Your task to perform on an android device: Open battery settings Image 0: 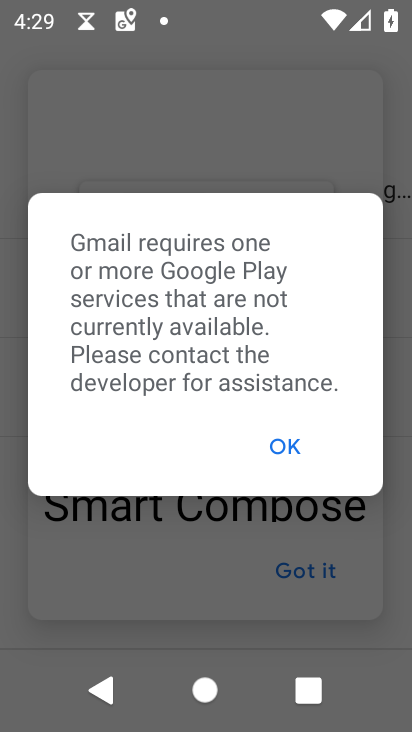
Step 0: press home button
Your task to perform on an android device: Open battery settings Image 1: 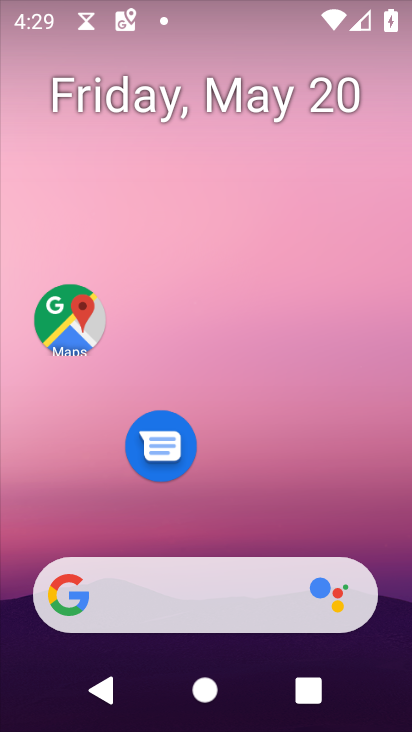
Step 1: drag from (224, 517) to (201, 6)
Your task to perform on an android device: Open battery settings Image 2: 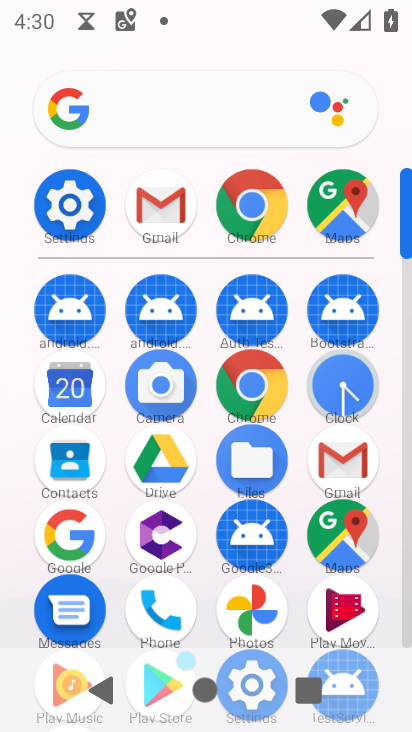
Step 2: click (60, 207)
Your task to perform on an android device: Open battery settings Image 3: 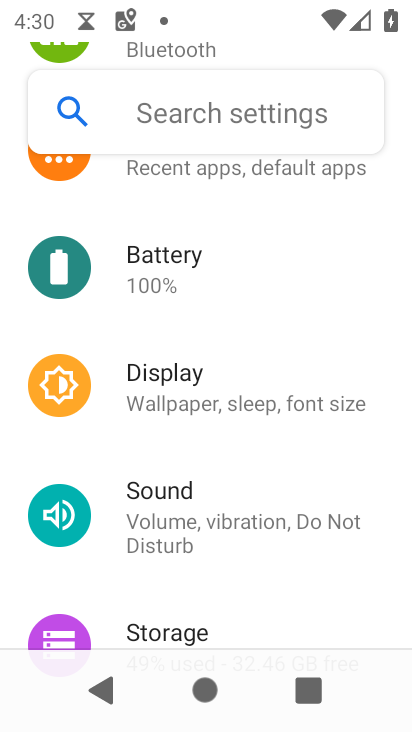
Step 3: click (207, 267)
Your task to perform on an android device: Open battery settings Image 4: 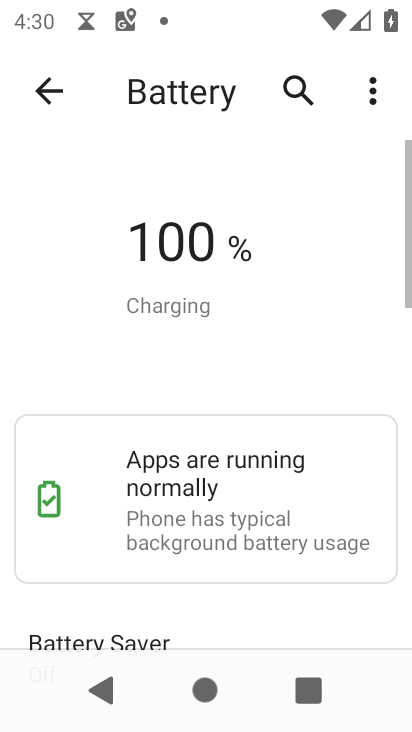
Step 4: task complete